Your task to perform on an android device: Open Maps and search for coffee Image 0: 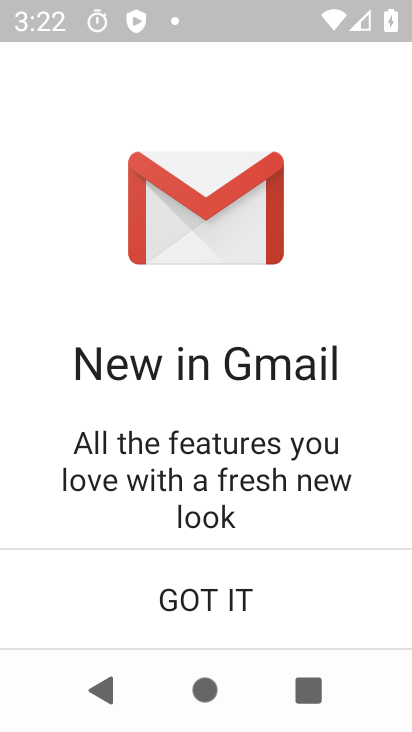
Step 0: press home button
Your task to perform on an android device: Open Maps and search for coffee Image 1: 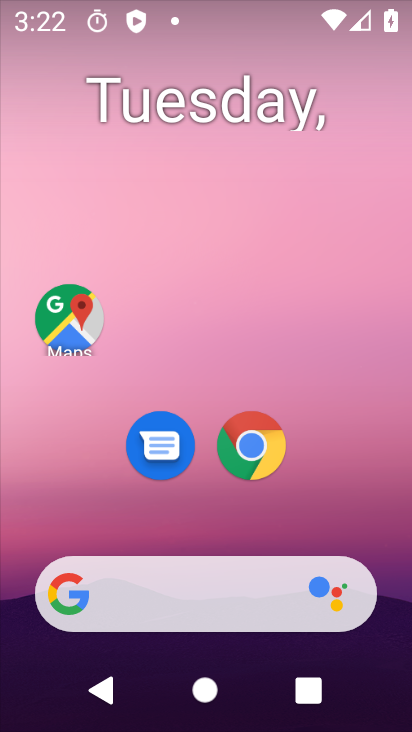
Step 1: drag from (159, 537) to (74, 68)
Your task to perform on an android device: Open Maps and search for coffee Image 2: 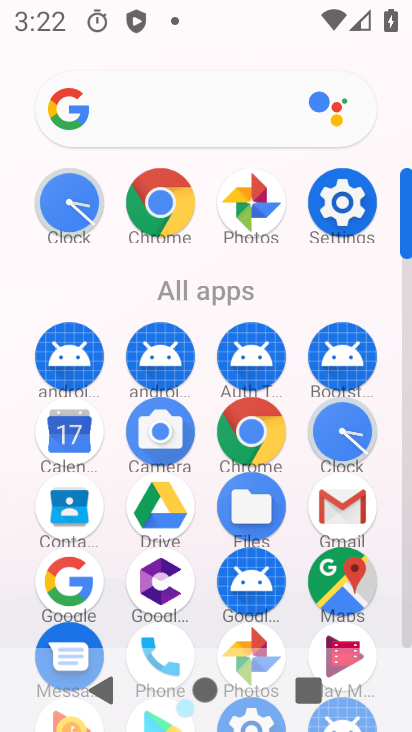
Step 2: click (332, 571)
Your task to perform on an android device: Open Maps and search for coffee Image 3: 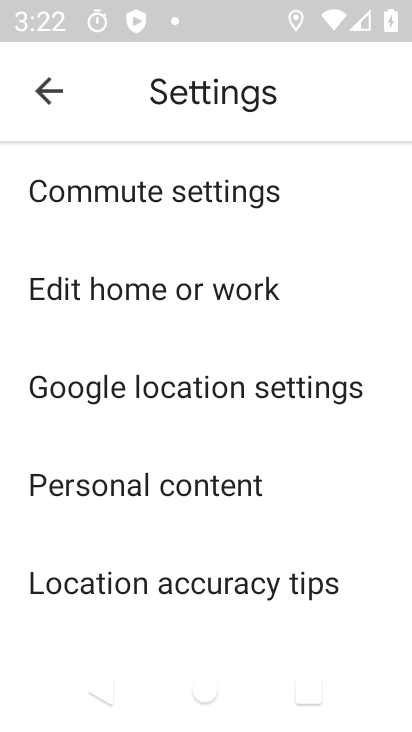
Step 3: click (41, 84)
Your task to perform on an android device: Open Maps and search for coffee Image 4: 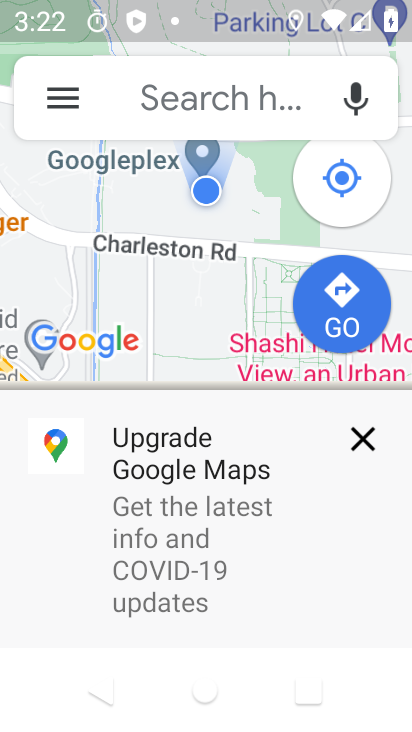
Step 4: click (179, 91)
Your task to perform on an android device: Open Maps and search for coffee Image 5: 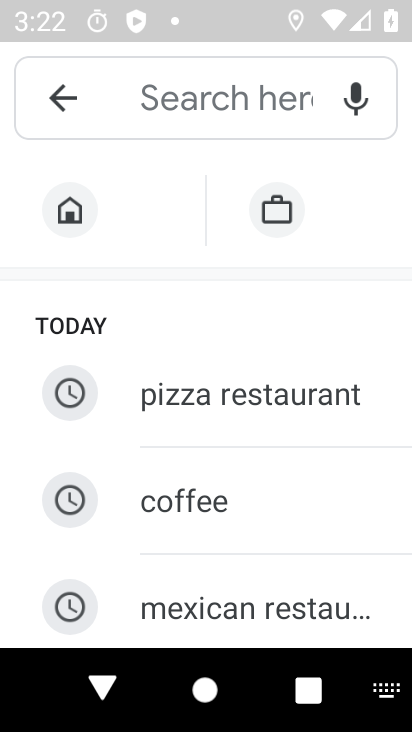
Step 5: click (218, 519)
Your task to perform on an android device: Open Maps and search for coffee Image 6: 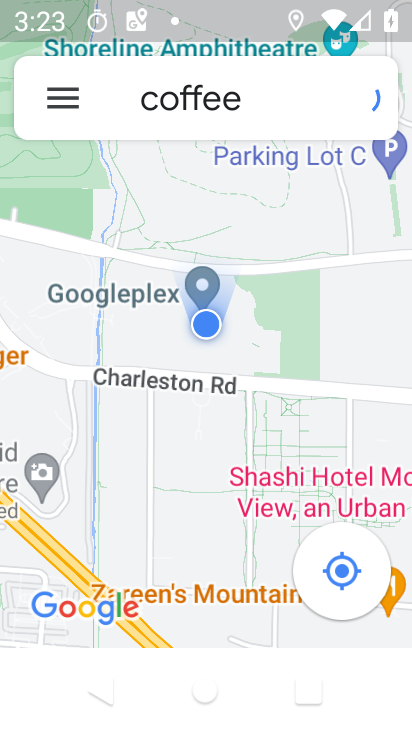
Step 6: task complete